Your task to perform on an android device: delete location history Image 0: 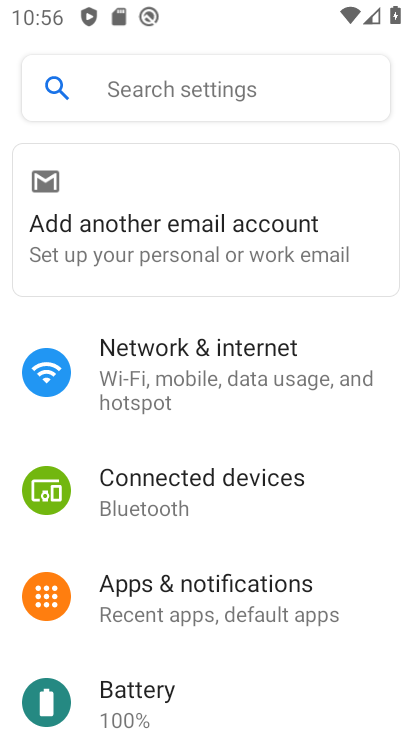
Step 0: drag from (181, 684) to (200, 340)
Your task to perform on an android device: delete location history Image 1: 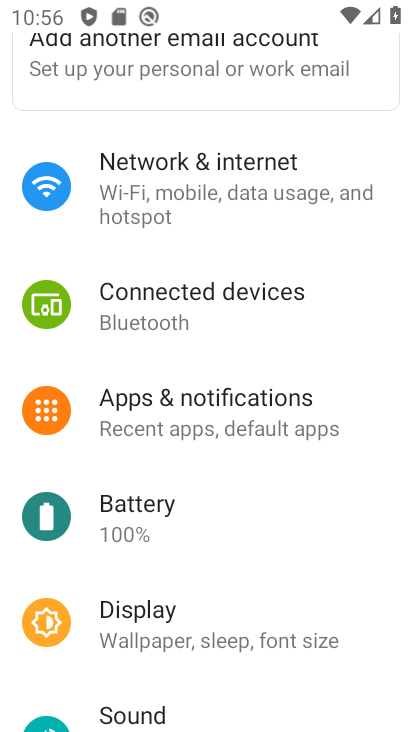
Step 1: drag from (151, 672) to (159, 373)
Your task to perform on an android device: delete location history Image 2: 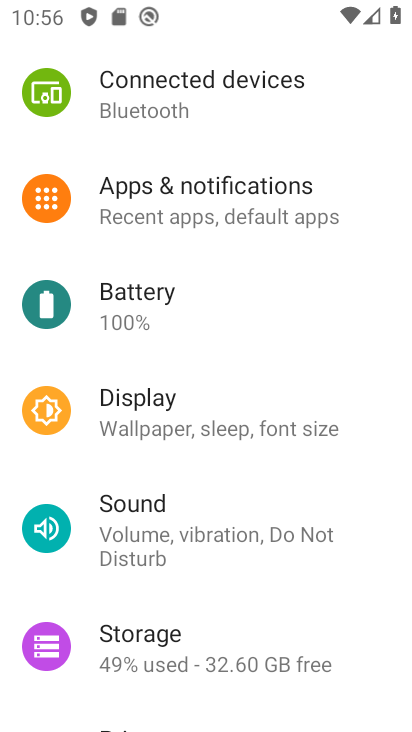
Step 2: drag from (181, 683) to (125, 360)
Your task to perform on an android device: delete location history Image 3: 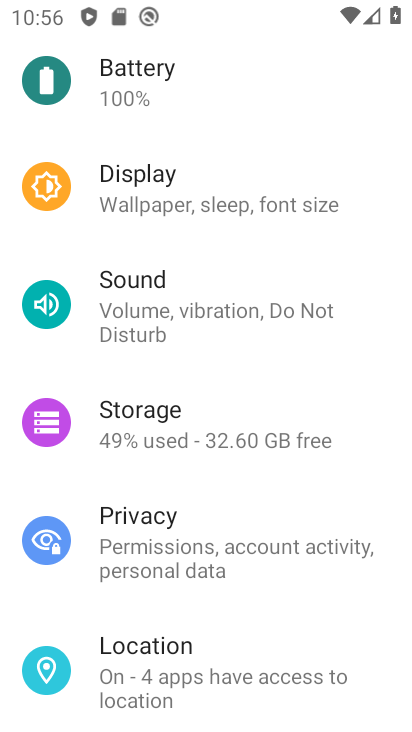
Step 3: click (134, 678)
Your task to perform on an android device: delete location history Image 4: 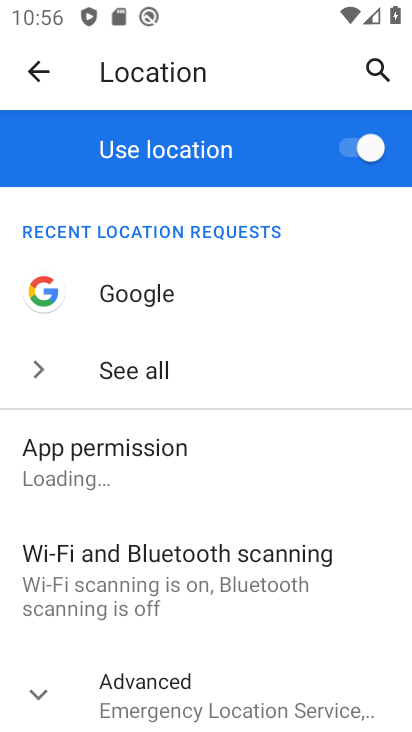
Step 4: drag from (144, 686) to (185, 362)
Your task to perform on an android device: delete location history Image 5: 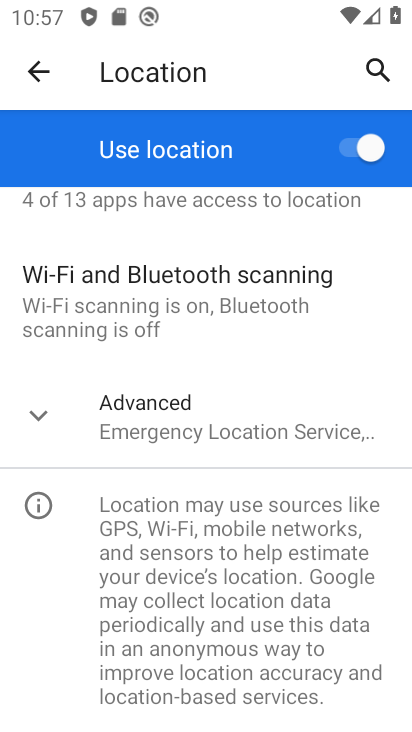
Step 5: click (213, 429)
Your task to perform on an android device: delete location history Image 6: 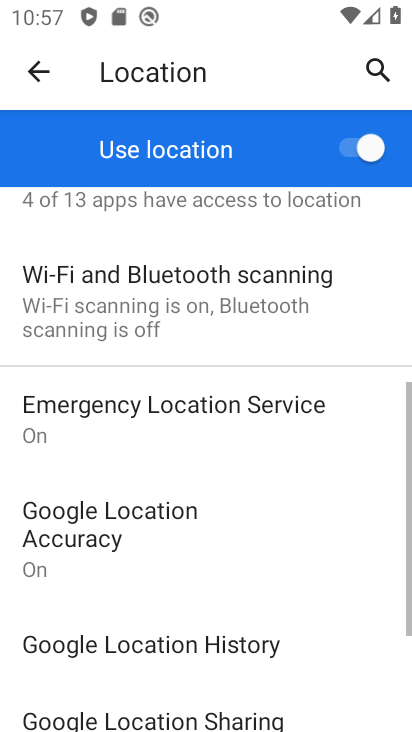
Step 6: drag from (193, 636) to (147, 366)
Your task to perform on an android device: delete location history Image 7: 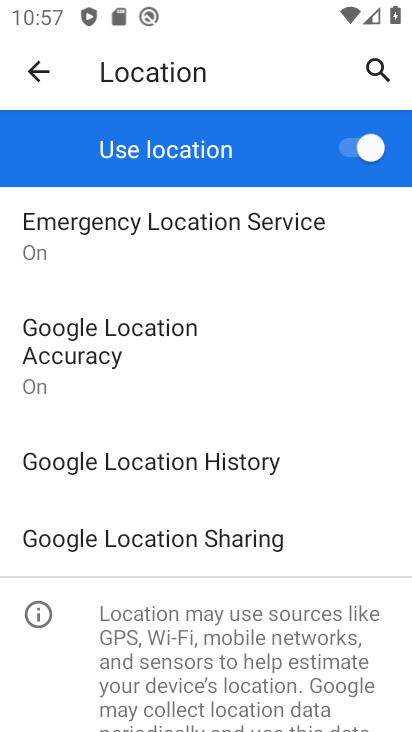
Step 7: click (95, 463)
Your task to perform on an android device: delete location history Image 8: 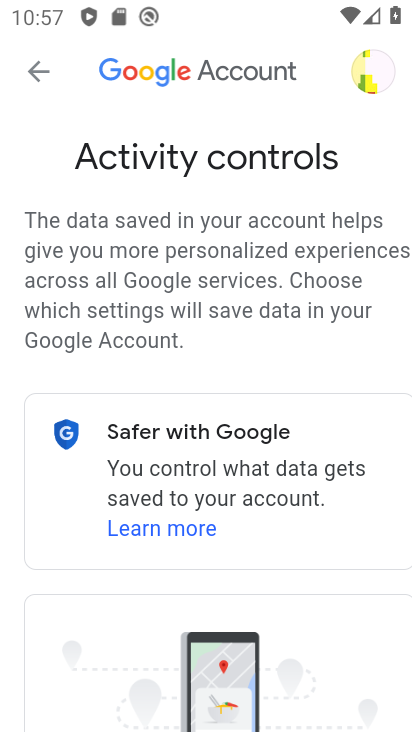
Step 8: drag from (166, 613) to (158, 299)
Your task to perform on an android device: delete location history Image 9: 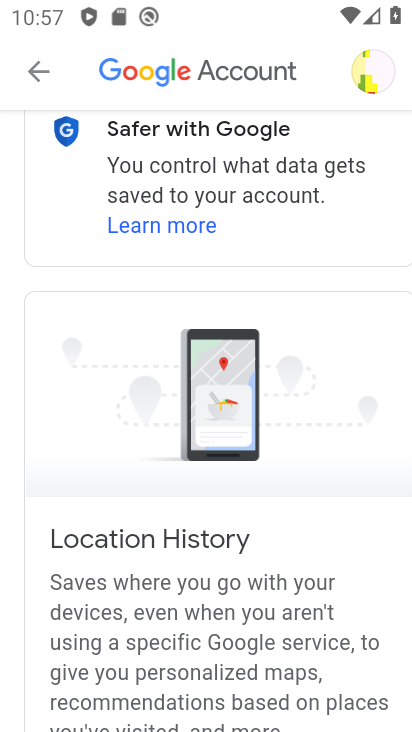
Step 9: drag from (227, 693) to (199, 333)
Your task to perform on an android device: delete location history Image 10: 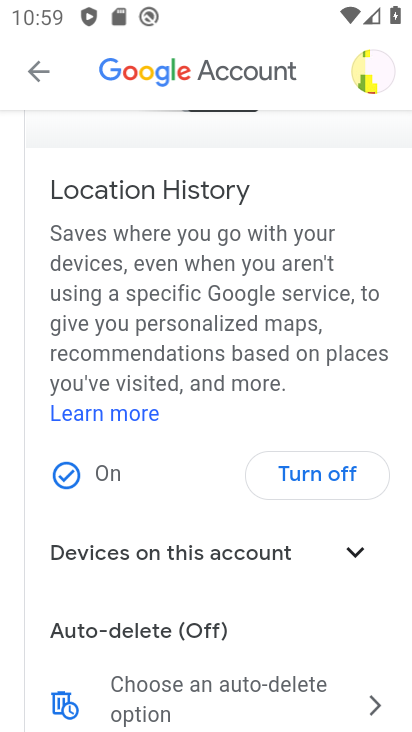
Step 10: drag from (203, 714) to (176, 512)
Your task to perform on an android device: delete location history Image 11: 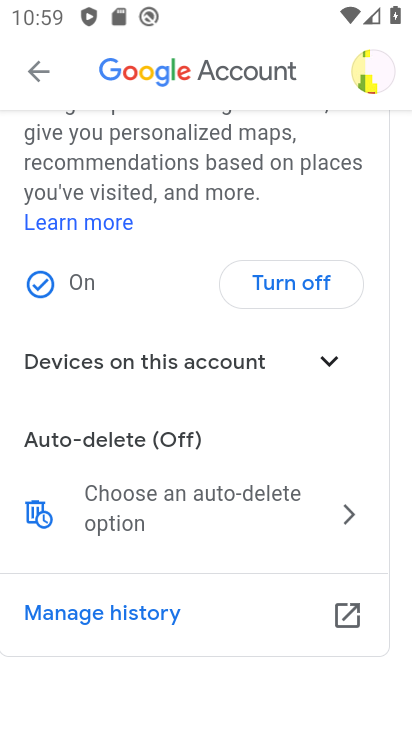
Step 11: click (108, 510)
Your task to perform on an android device: delete location history Image 12: 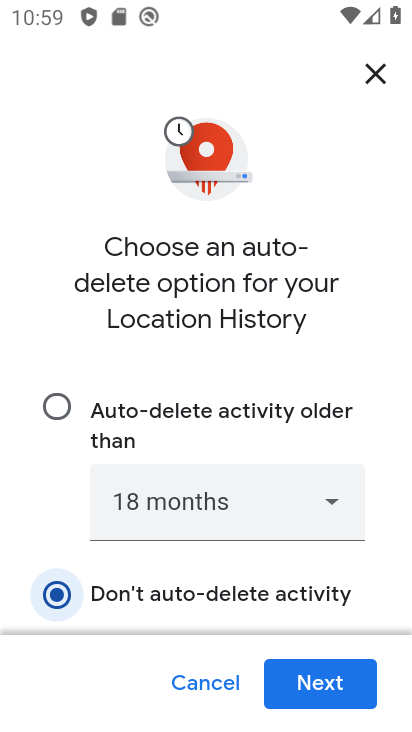
Step 12: click (327, 675)
Your task to perform on an android device: delete location history Image 13: 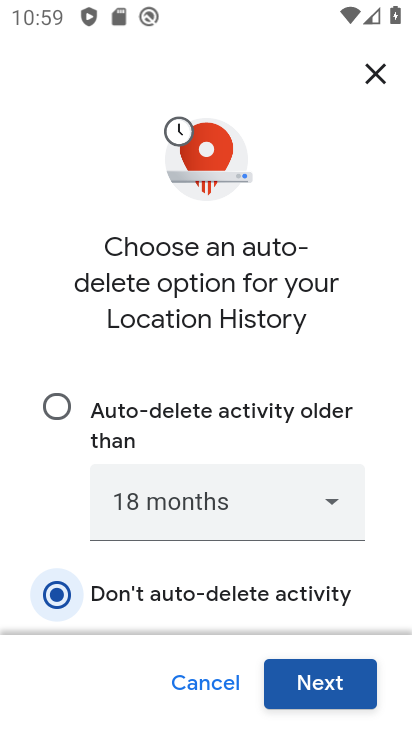
Step 13: click (309, 693)
Your task to perform on an android device: delete location history Image 14: 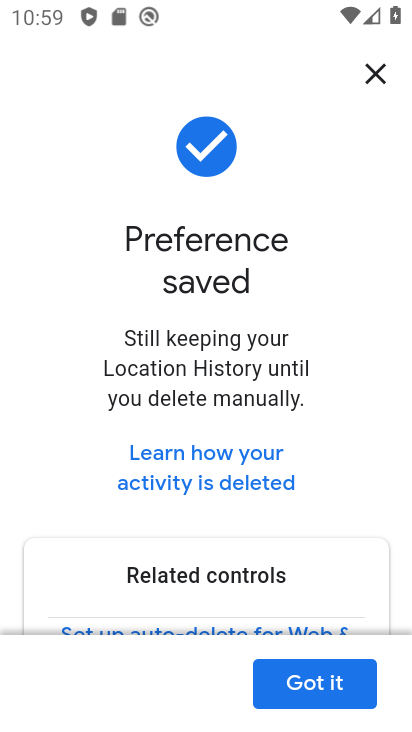
Step 14: click (292, 687)
Your task to perform on an android device: delete location history Image 15: 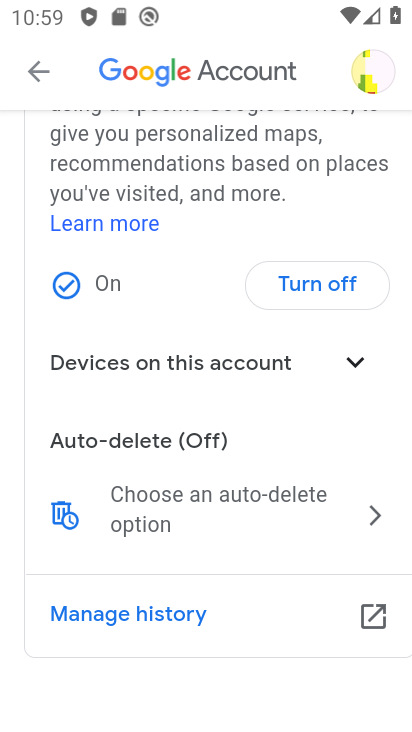
Step 15: task complete